Your task to perform on an android device: Turn on the flashlight Image 0: 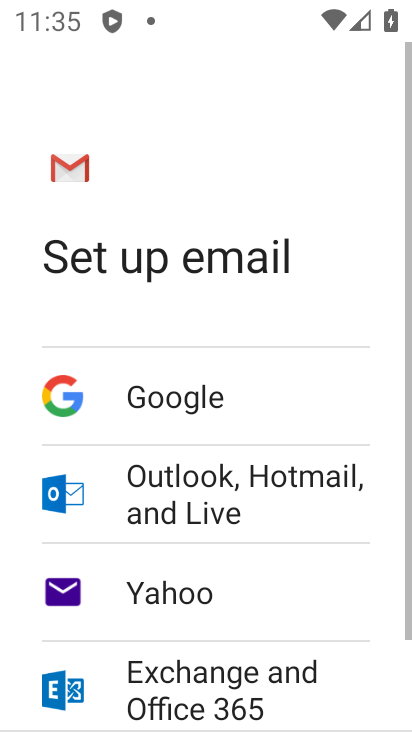
Step 0: press home button
Your task to perform on an android device: Turn on the flashlight Image 1: 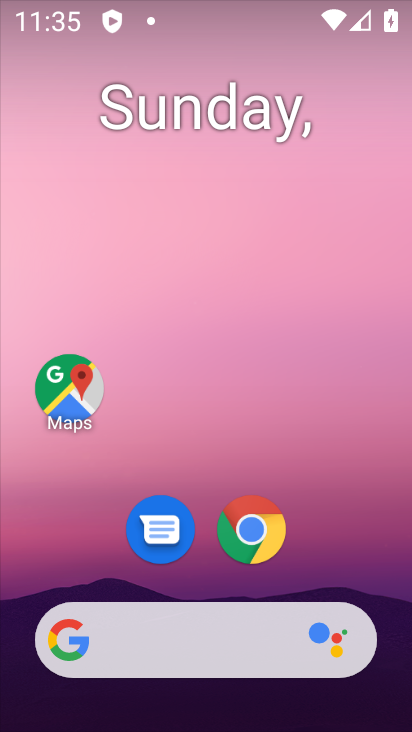
Step 1: drag from (267, 1) to (248, 333)
Your task to perform on an android device: Turn on the flashlight Image 2: 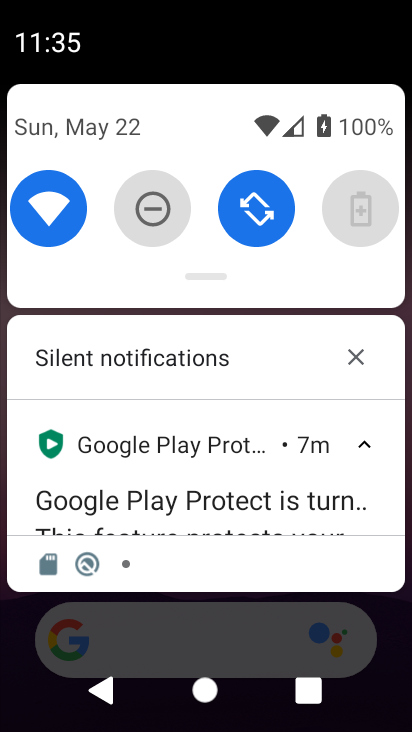
Step 2: drag from (194, 74) to (205, 376)
Your task to perform on an android device: Turn on the flashlight Image 3: 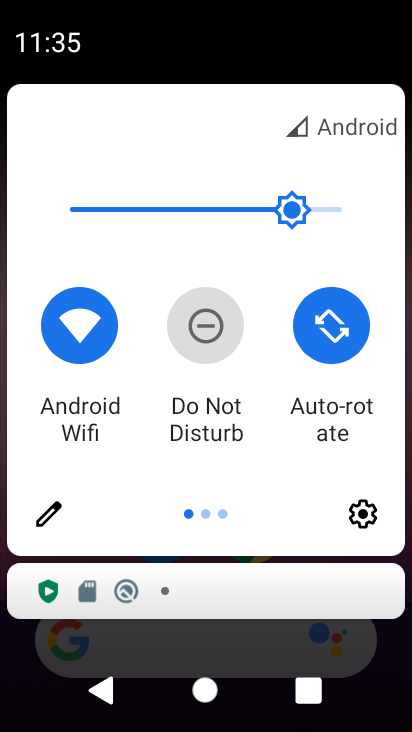
Step 3: click (37, 529)
Your task to perform on an android device: Turn on the flashlight Image 4: 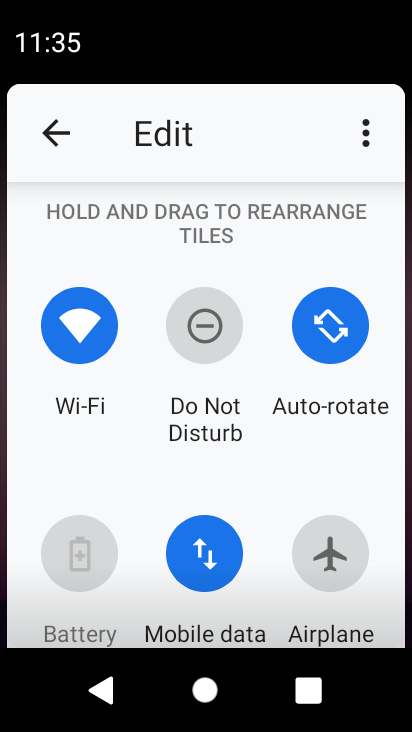
Step 4: task complete